Your task to perform on an android device: What's the weather going to be tomorrow? Image 0: 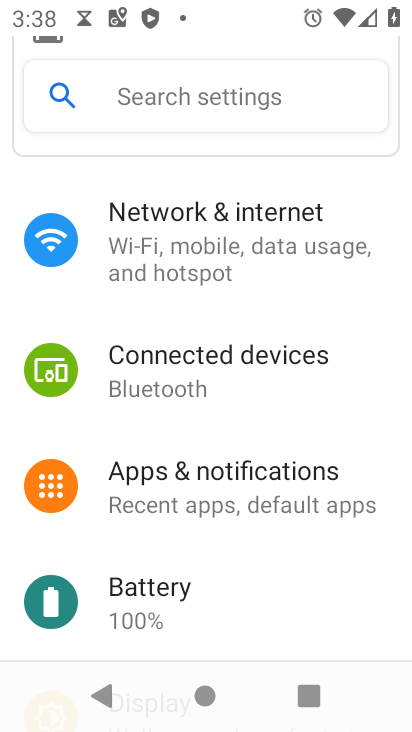
Step 0: press home button
Your task to perform on an android device: What's the weather going to be tomorrow? Image 1: 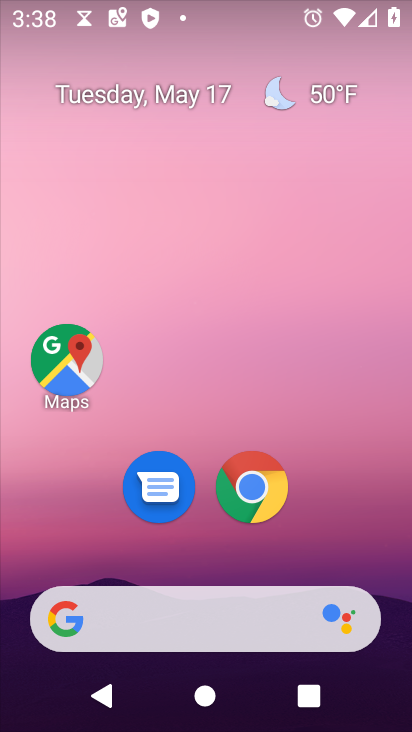
Step 1: click (326, 88)
Your task to perform on an android device: What's the weather going to be tomorrow? Image 2: 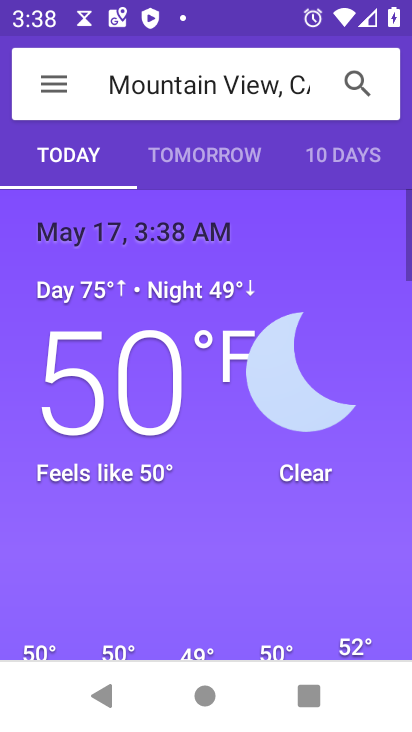
Step 2: click (199, 162)
Your task to perform on an android device: What's the weather going to be tomorrow? Image 3: 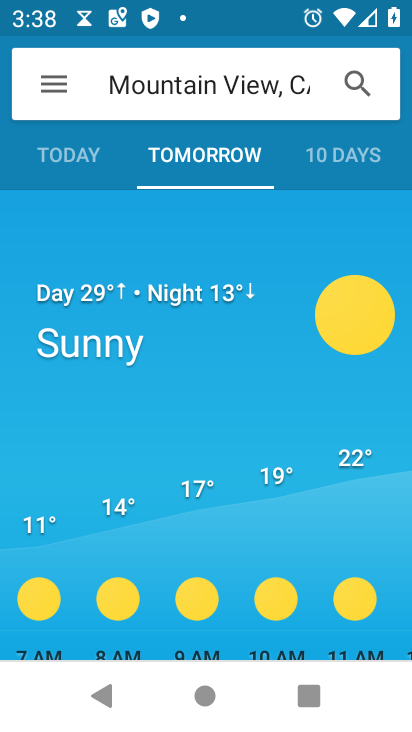
Step 3: task complete